Your task to perform on an android device: change the clock display to analog Image 0: 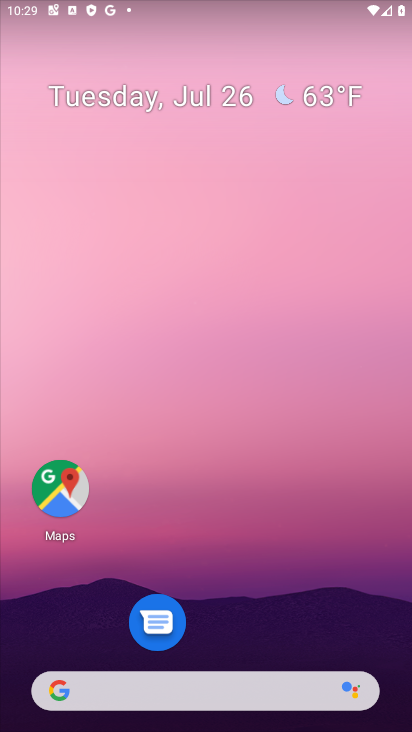
Step 0: drag from (273, 651) to (329, 0)
Your task to perform on an android device: change the clock display to analog Image 1: 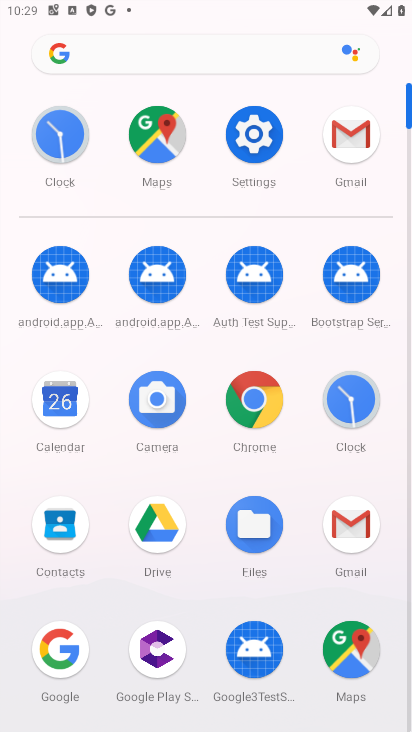
Step 1: click (68, 150)
Your task to perform on an android device: change the clock display to analog Image 2: 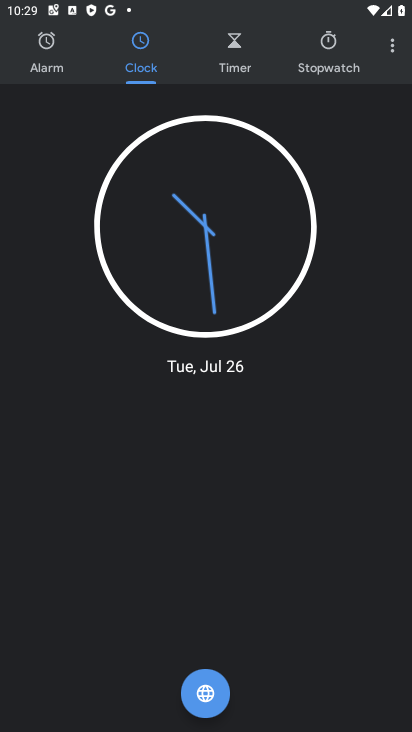
Step 2: click (385, 54)
Your task to perform on an android device: change the clock display to analog Image 3: 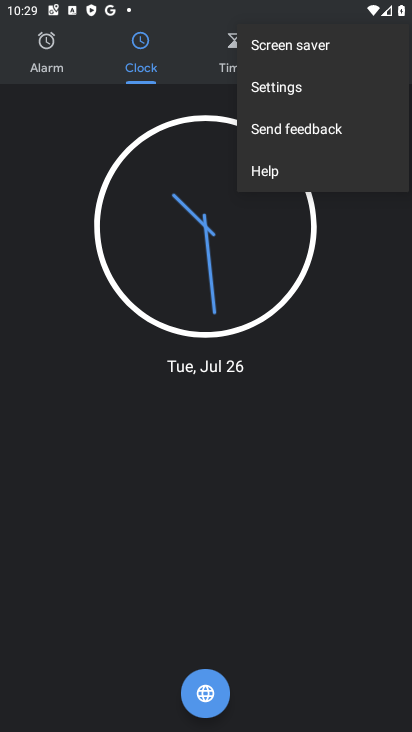
Step 3: click (296, 95)
Your task to perform on an android device: change the clock display to analog Image 4: 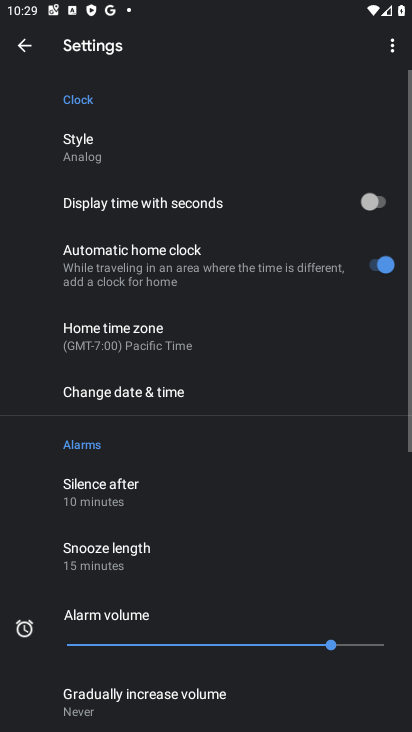
Step 4: click (103, 165)
Your task to perform on an android device: change the clock display to analog Image 5: 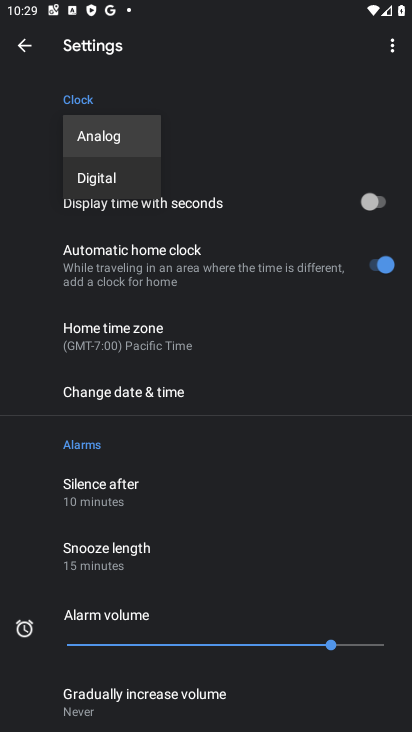
Step 5: task complete